Your task to perform on an android device: Open CNN.com Image 0: 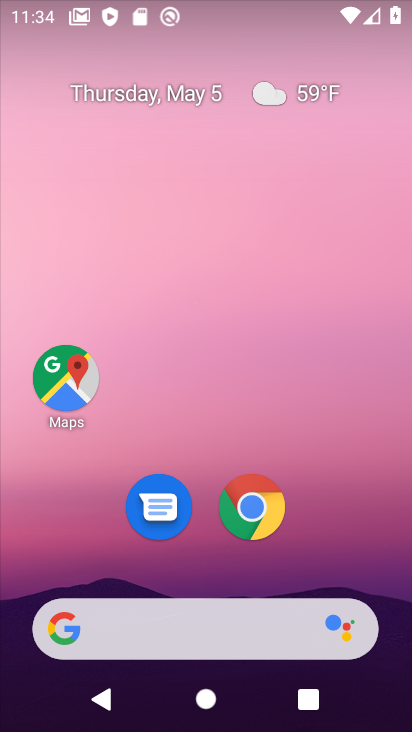
Step 0: click (254, 510)
Your task to perform on an android device: Open CNN.com Image 1: 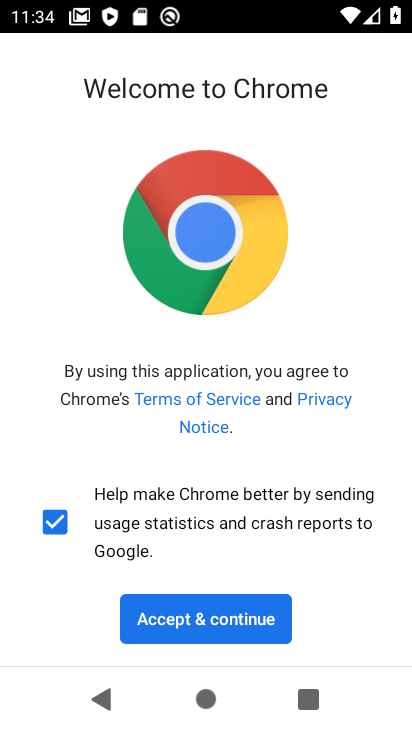
Step 1: click (218, 621)
Your task to perform on an android device: Open CNN.com Image 2: 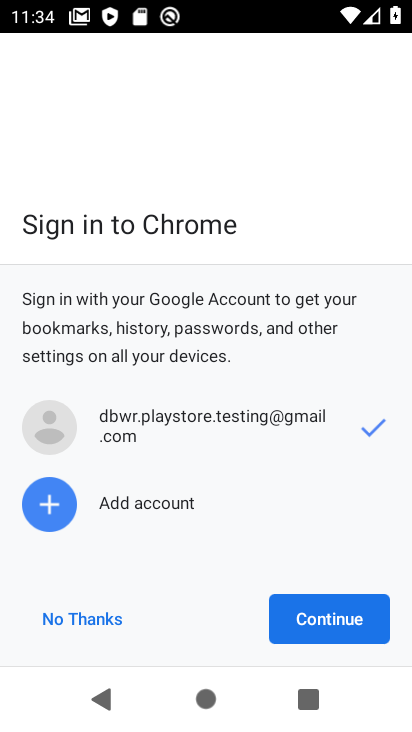
Step 2: click (324, 624)
Your task to perform on an android device: Open CNN.com Image 3: 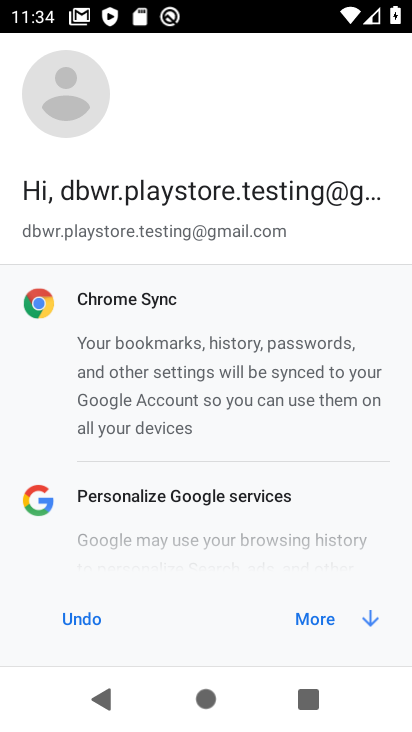
Step 3: click (324, 624)
Your task to perform on an android device: Open CNN.com Image 4: 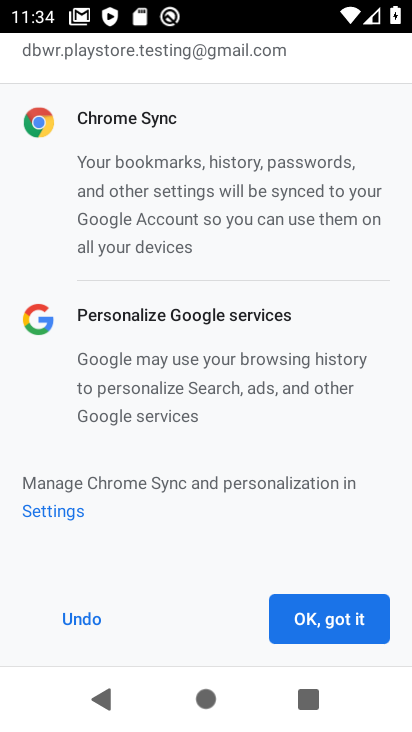
Step 4: click (370, 622)
Your task to perform on an android device: Open CNN.com Image 5: 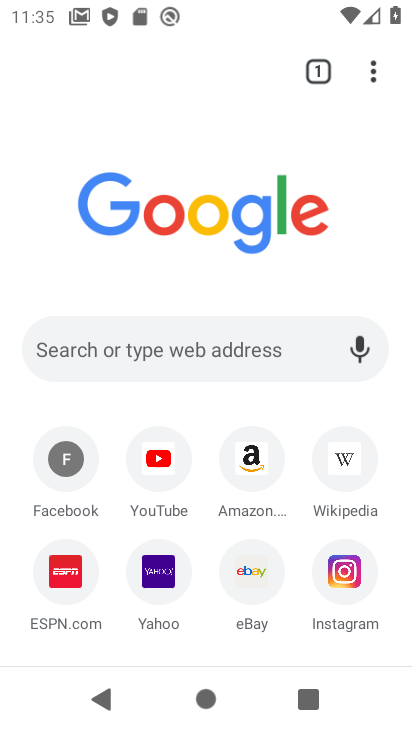
Step 5: click (159, 349)
Your task to perform on an android device: Open CNN.com Image 6: 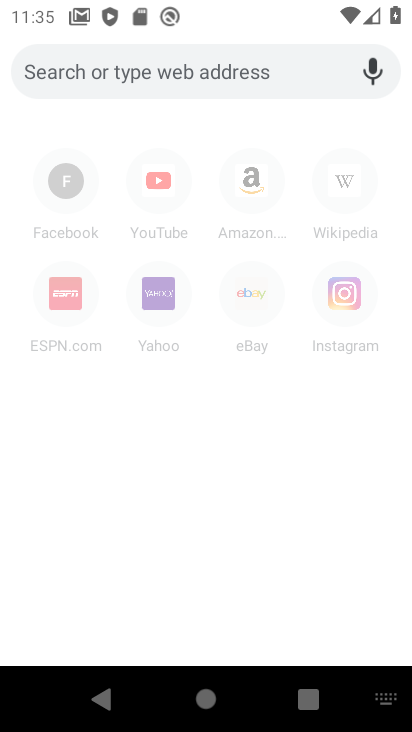
Step 6: type "cnn.com"
Your task to perform on an android device: Open CNN.com Image 7: 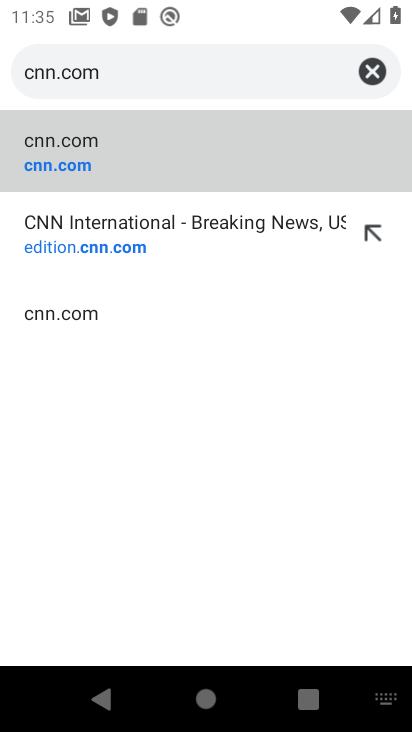
Step 7: click (37, 146)
Your task to perform on an android device: Open CNN.com Image 8: 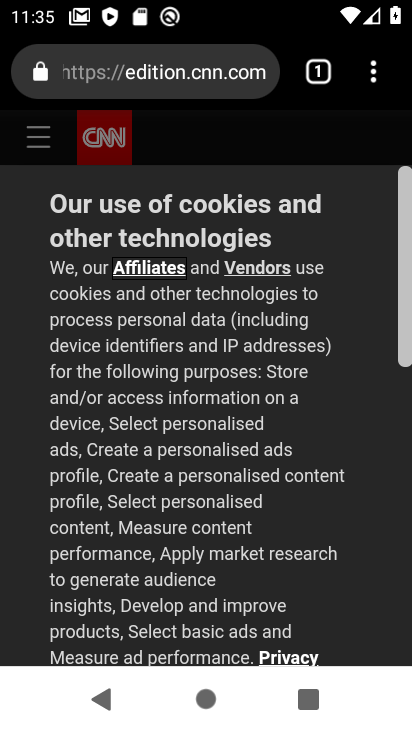
Step 8: task complete